Your task to perform on an android device: turn on notifications settings in the gmail app Image 0: 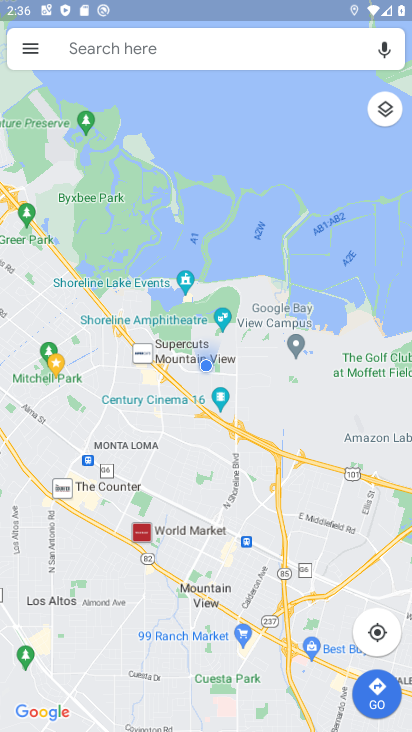
Step 0: press home button
Your task to perform on an android device: turn on notifications settings in the gmail app Image 1: 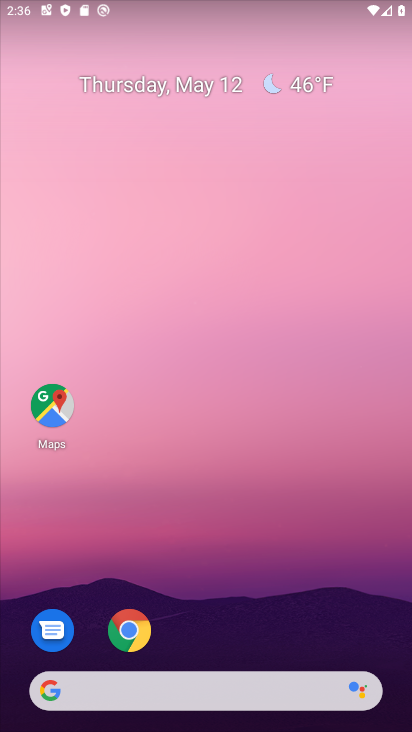
Step 1: drag from (237, 583) to (213, 35)
Your task to perform on an android device: turn on notifications settings in the gmail app Image 2: 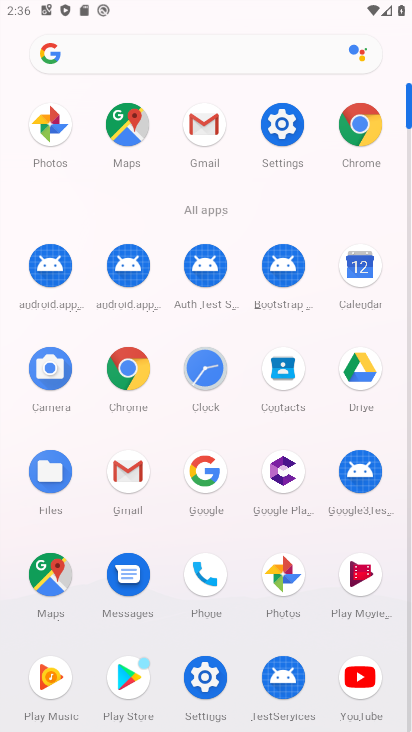
Step 2: click (203, 121)
Your task to perform on an android device: turn on notifications settings in the gmail app Image 3: 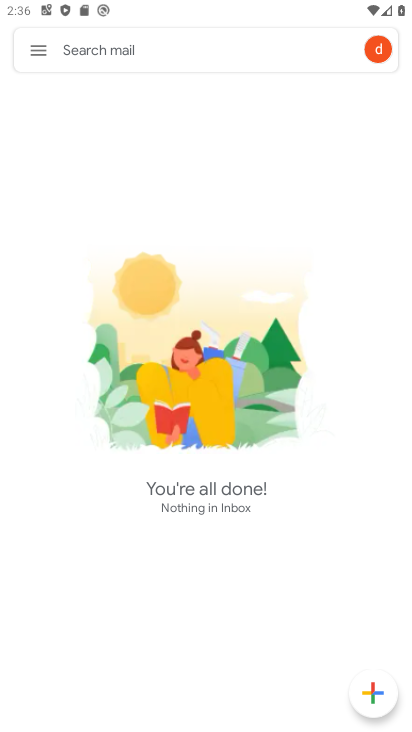
Step 3: click (35, 48)
Your task to perform on an android device: turn on notifications settings in the gmail app Image 4: 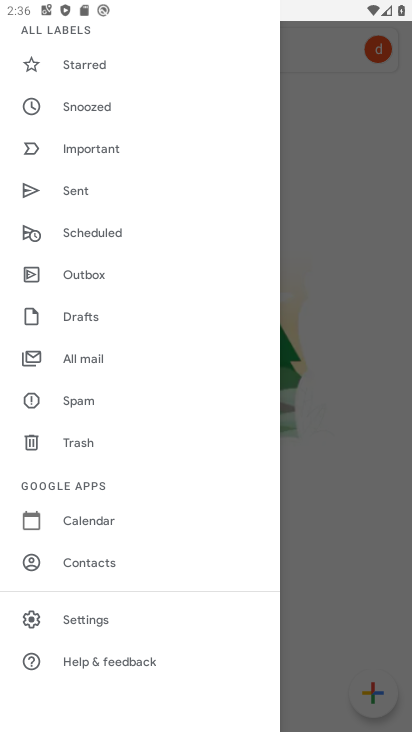
Step 4: click (85, 621)
Your task to perform on an android device: turn on notifications settings in the gmail app Image 5: 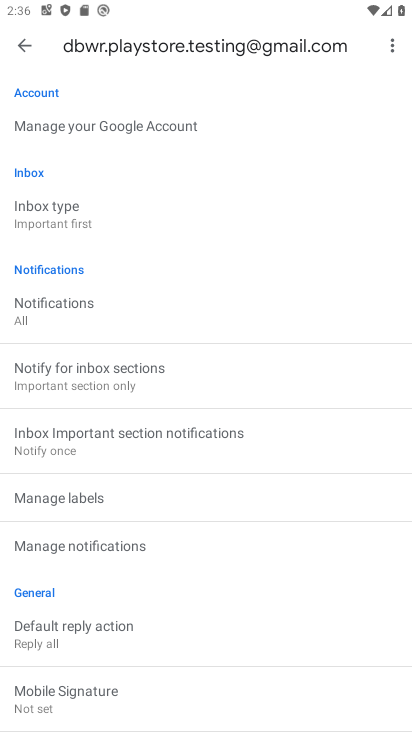
Step 5: click (72, 549)
Your task to perform on an android device: turn on notifications settings in the gmail app Image 6: 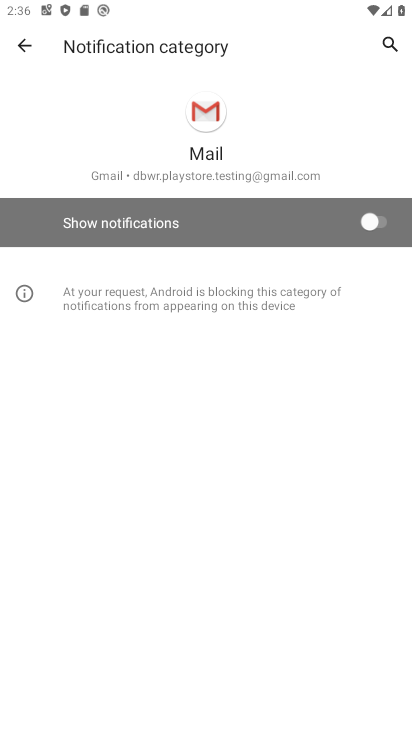
Step 6: click (367, 220)
Your task to perform on an android device: turn on notifications settings in the gmail app Image 7: 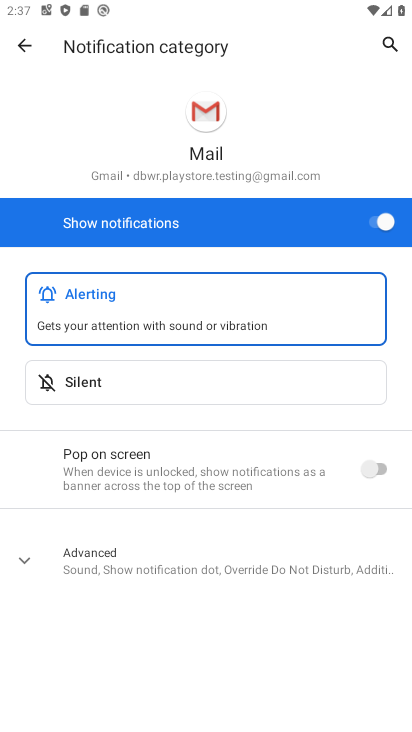
Step 7: task complete